Your task to perform on an android device: turn on the 24-hour format for clock Image 0: 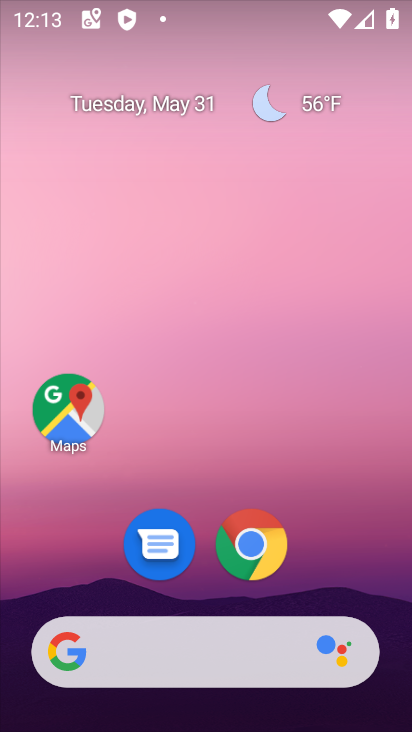
Step 0: drag from (310, 449) to (250, 78)
Your task to perform on an android device: turn on the 24-hour format for clock Image 1: 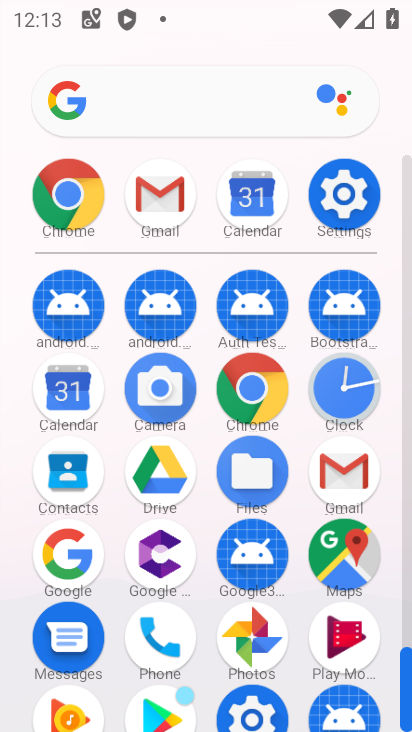
Step 1: click (345, 378)
Your task to perform on an android device: turn on the 24-hour format for clock Image 2: 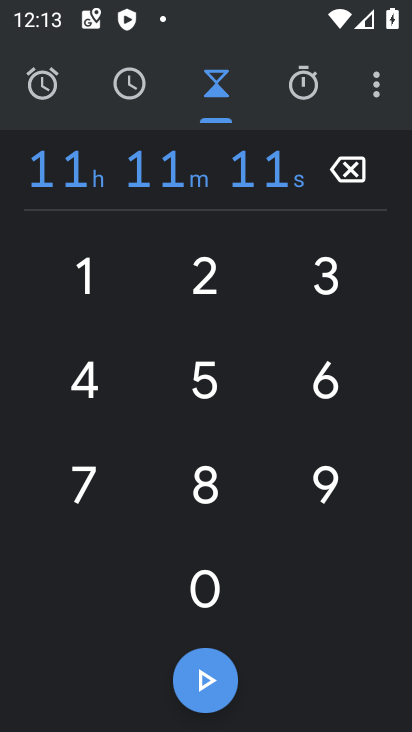
Step 2: click (381, 82)
Your task to perform on an android device: turn on the 24-hour format for clock Image 3: 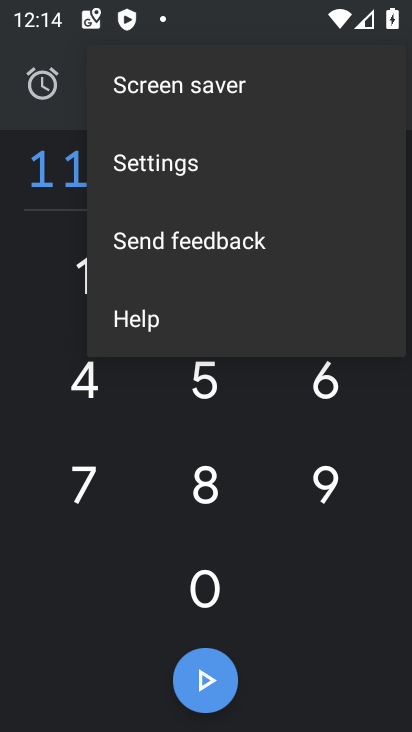
Step 3: click (164, 169)
Your task to perform on an android device: turn on the 24-hour format for clock Image 4: 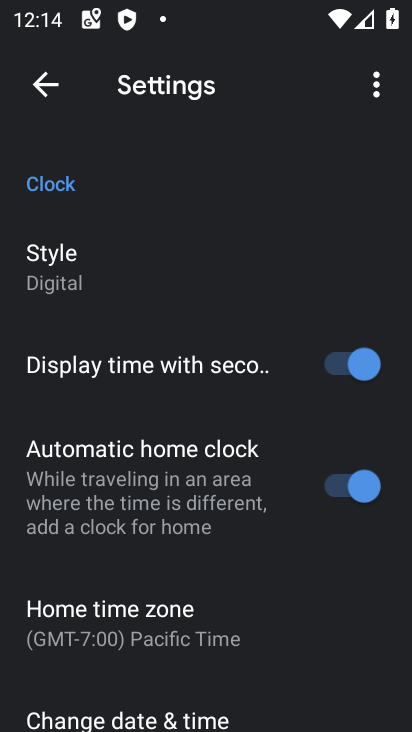
Step 4: drag from (293, 631) to (249, 353)
Your task to perform on an android device: turn on the 24-hour format for clock Image 5: 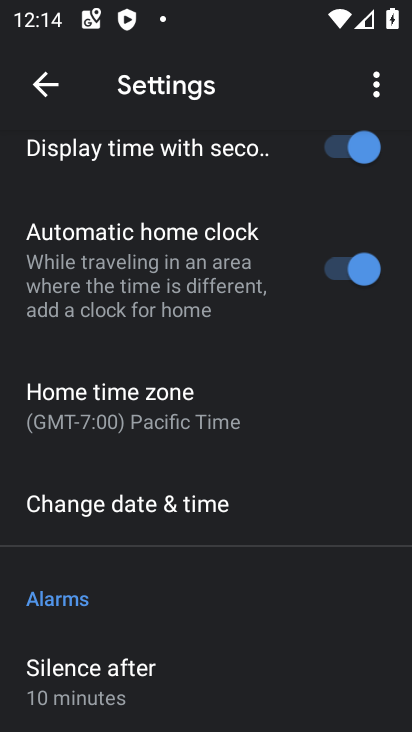
Step 5: click (153, 497)
Your task to perform on an android device: turn on the 24-hour format for clock Image 6: 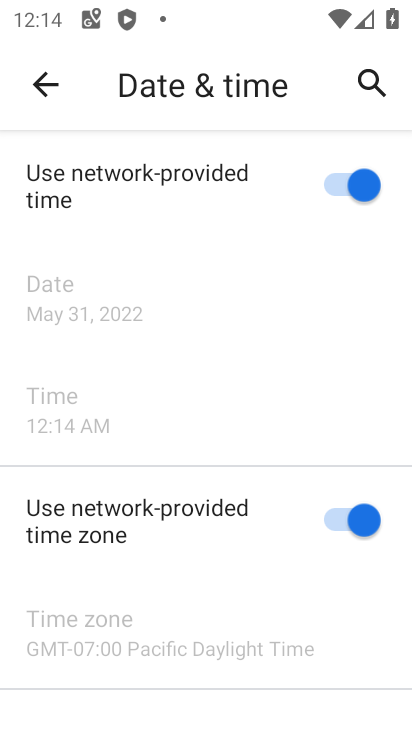
Step 6: drag from (273, 563) to (264, 350)
Your task to perform on an android device: turn on the 24-hour format for clock Image 7: 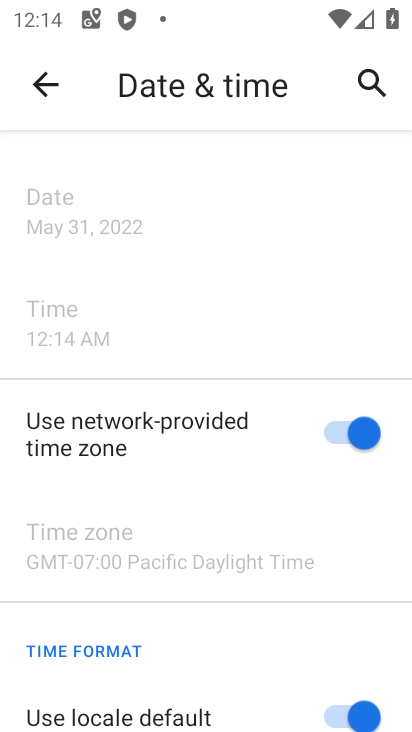
Step 7: drag from (251, 643) to (182, 220)
Your task to perform on an android device: turn on the 24-hour format for clock Image 8: 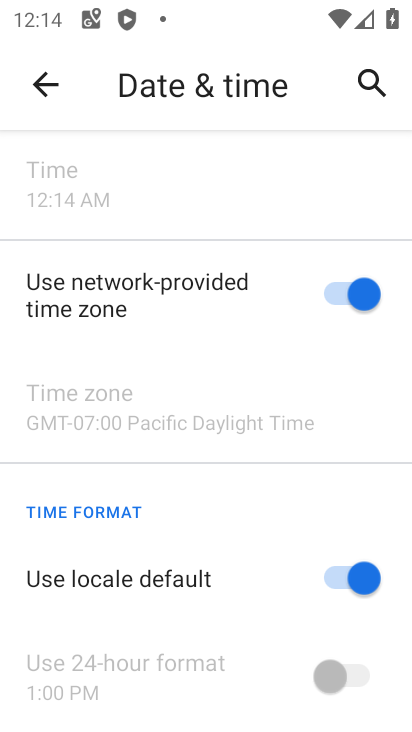
Step 8: click (365, 573)
Your task to perform on an android device: turn on the 24-hour format for clock Image 9: 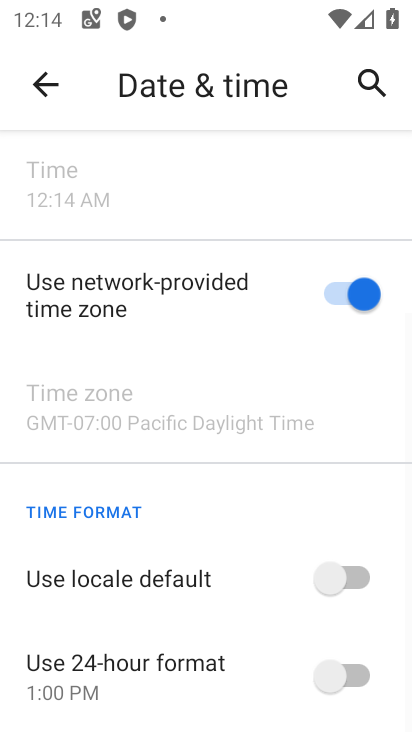
Step 9: click (340, 667)
Your task to perform on an android device: turn on the 24-hour format for clock Image 10: 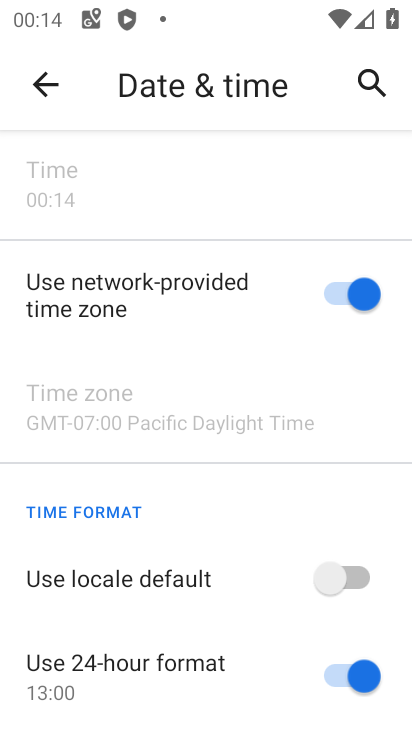
Step 10: task complete